Your task to perform on an android device: Go to calendar. Show me events next week Image 0: 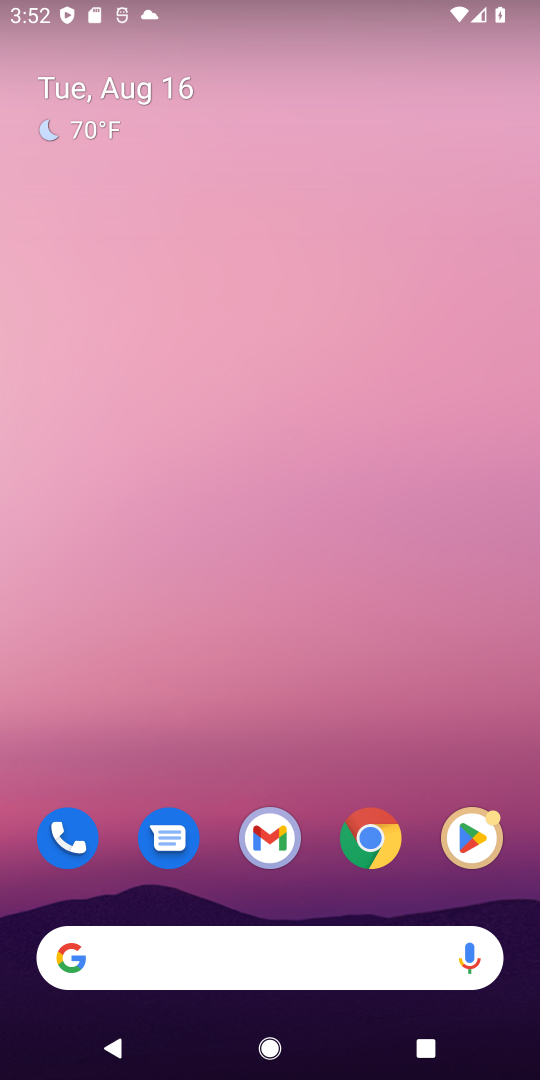
Step 0: drag from (336, 940) to (292, 201)
Your task to perform on an android device: Go to calendar. Show me events next week Image 1: 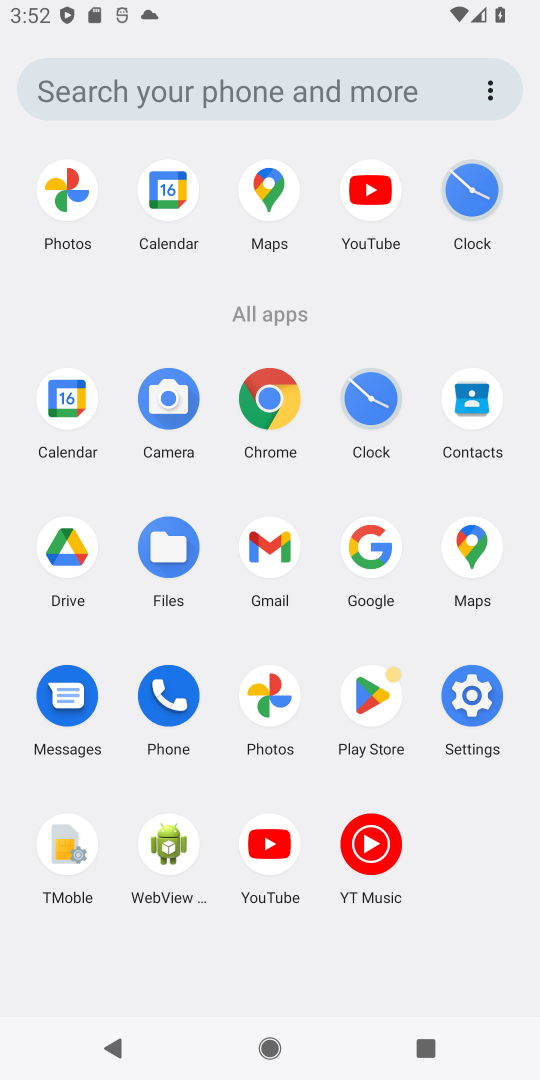
Step 1: click (82, 403)
Your task to perform on an android device: Go to calendar. Show me events next week Image 2: 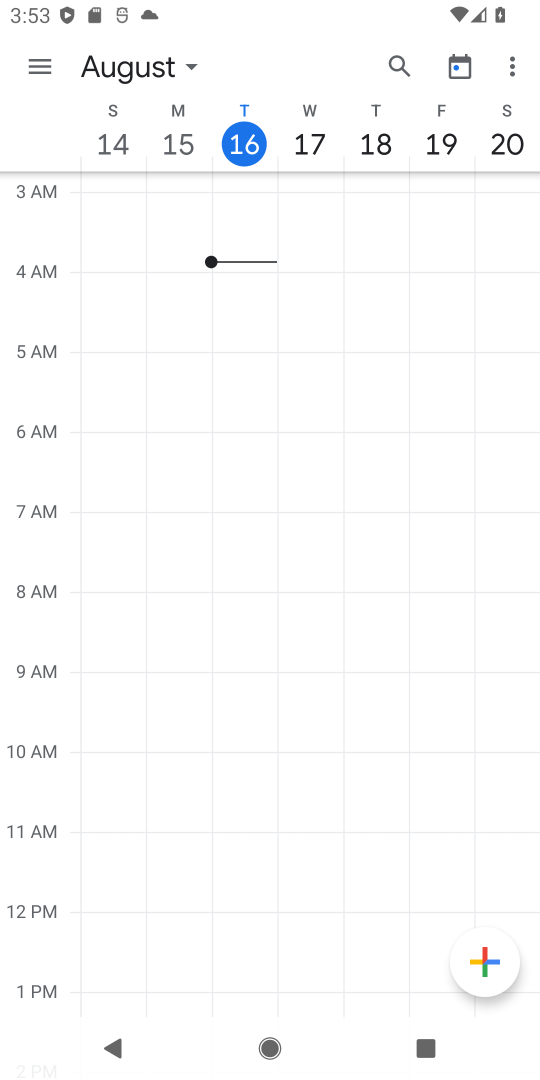
Step 2: click (37, 66)
Your task to perform on an android device: Go to calendar. Show me events next week Image 3: 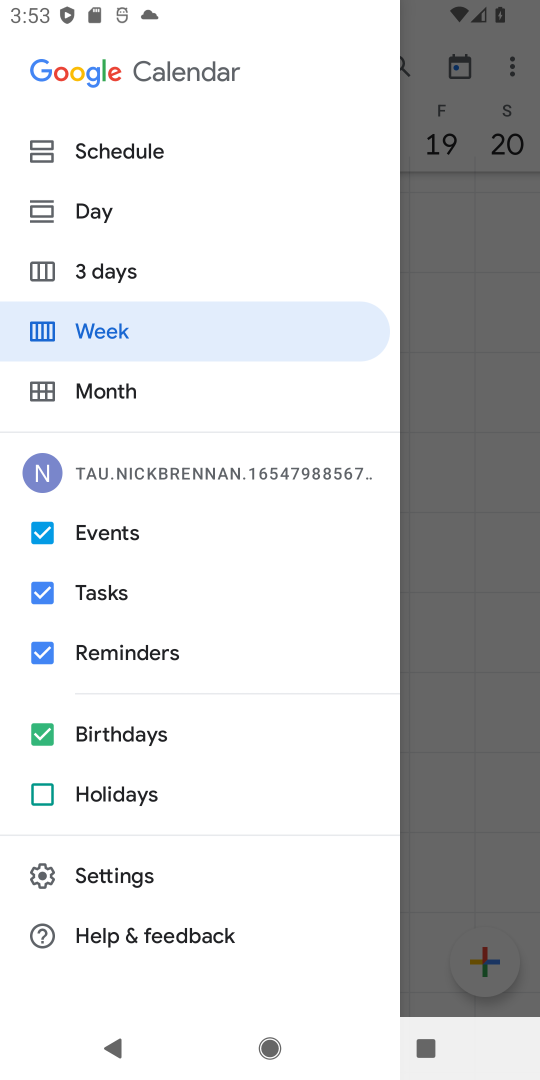
Step 3: click (161, 324)
Your task to perform on an android device: Go to calendar. Show me events next week Image 4: 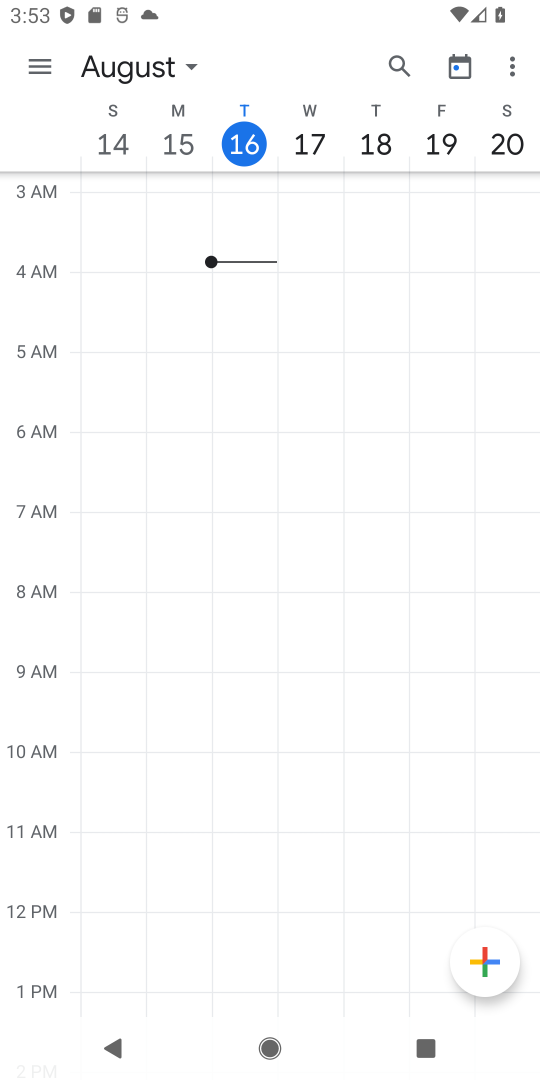
Step 4: task complete